Your task to perform on an android device: Show me popular videos on Youtube Image 0: 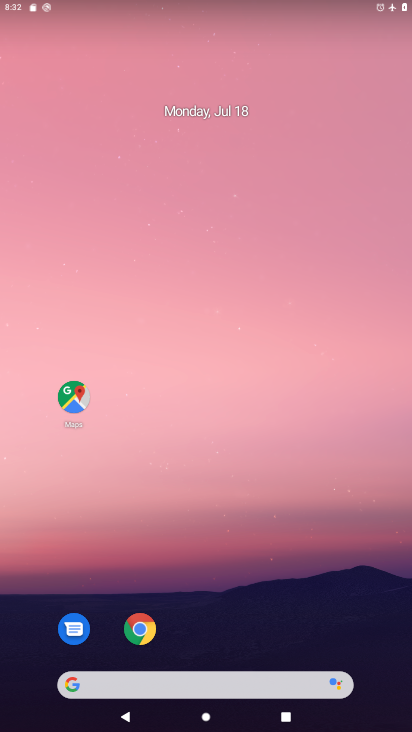
Step 0: drag from (214, 648) to (251, 71)
Your task to perform on an android device: Show me popular videos on Youtube Image 1: 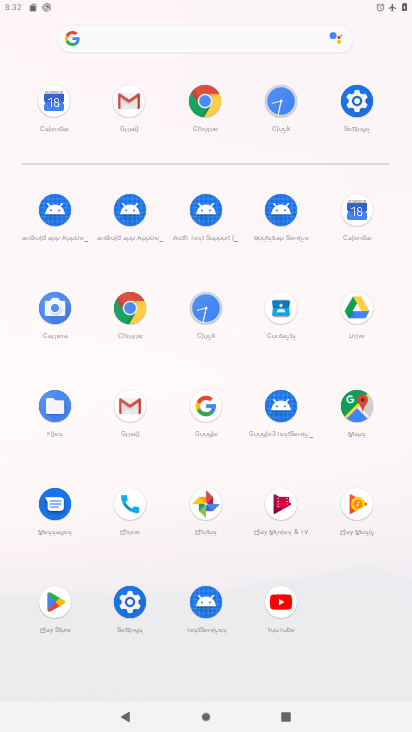
Step 1: click (293, 608)
Your task to perform on an android device: Show me popular videos on Youtube Image 2: 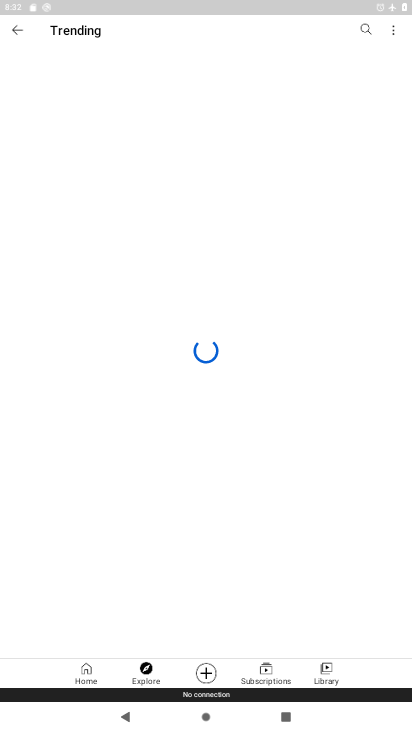
Step 2: task complete